Your task to perform on an android device: turn on improve location accuracy Image 0: 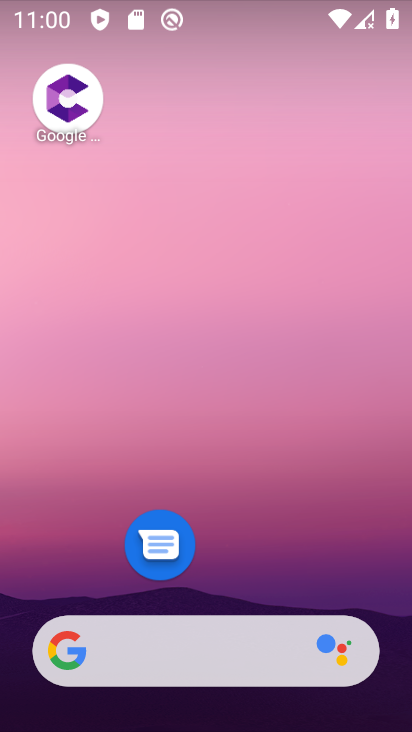
Step 0: drag from (296, 561) to (310, 51)
Your task to perform on an android device: turn on improve location accuracy Image 1: 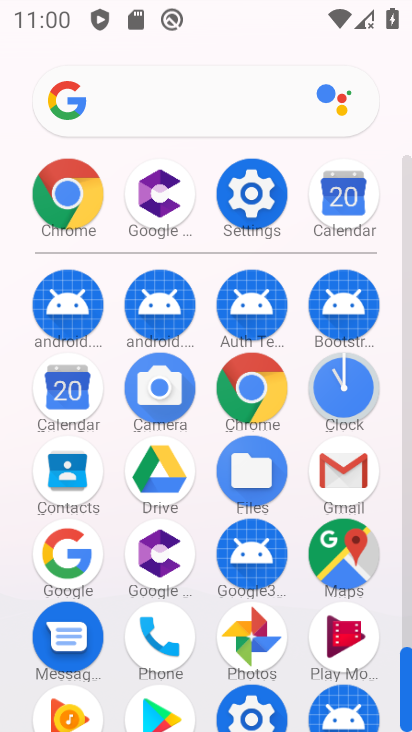
Step 1: click (256, 220)
Your task to perform on an android device: turn on improve location accuracy Image 2: 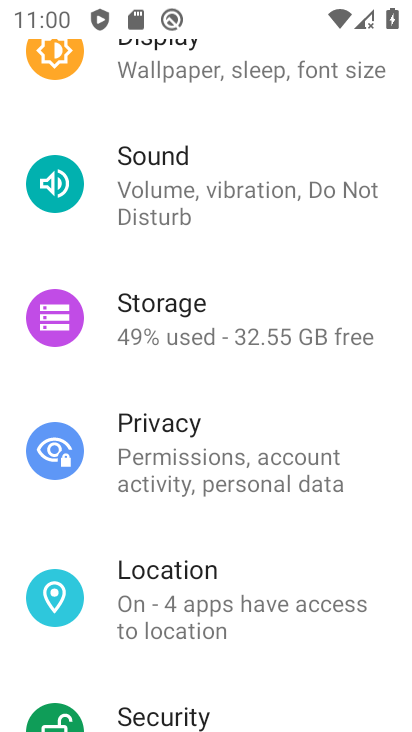
Step 2: click (224, 597)
Your task to perform on an android device: turn on improve location accuracy Image 3: 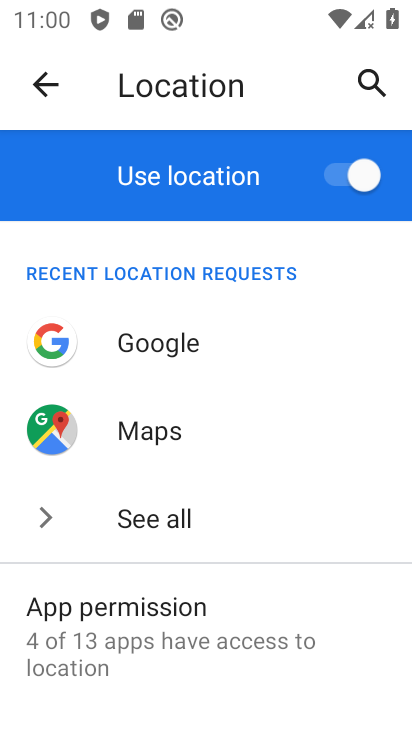
Step 3: drag from (234, 615) to (249, 219)
Your task to perform on an android device: turn on improve location accuracy Image 4: 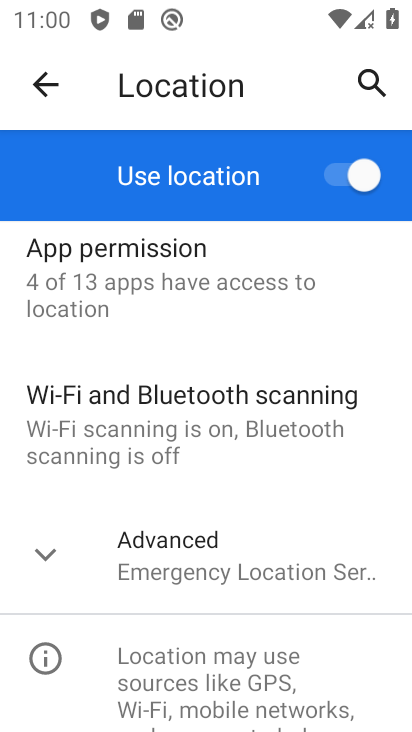
Step 4: click (238, 573)
Your task to perform on an android device: turn on improve location accuracy Image 5: 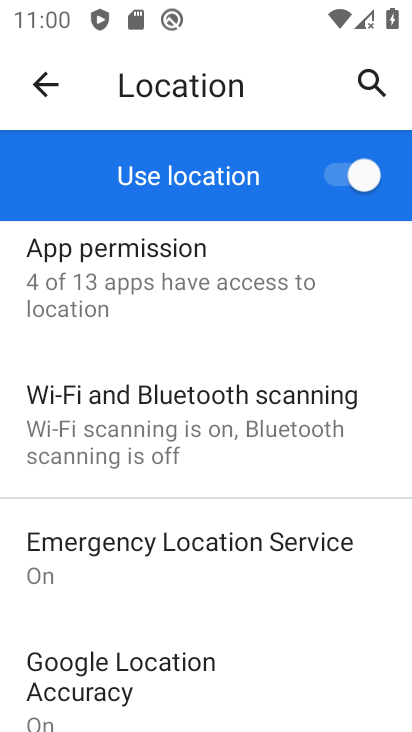
Step 5: drag from (233, 616) to (208, 260)
Your task to perform on an android device: turn on improve location accuracy Image 6: 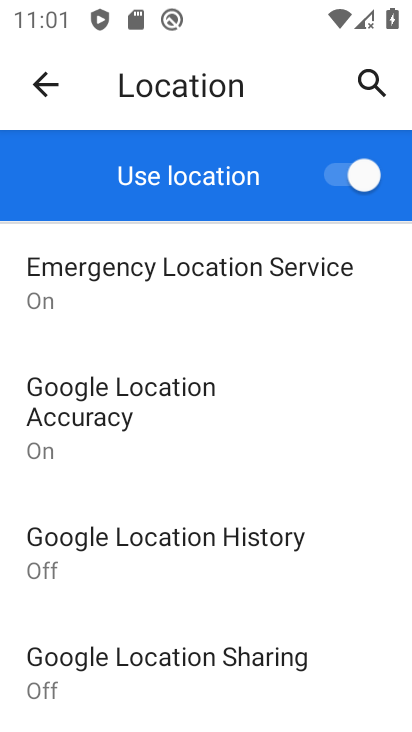
Step 6: click (192, 423)
Your task to perform on an android device: turn on improve location accuracy Image 7: 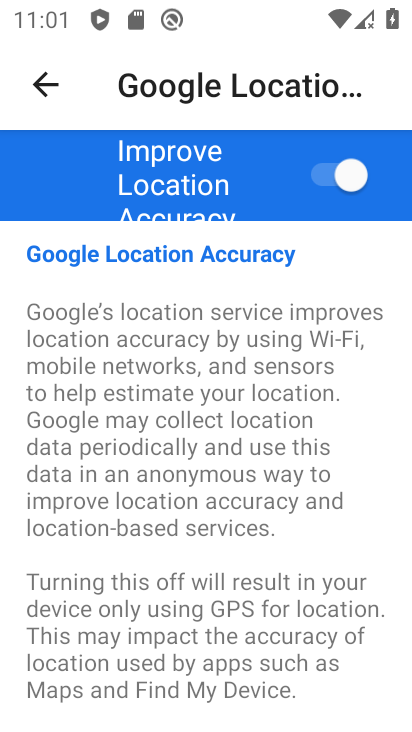
Step 7: task complete